Your task to perform on an android device: turn off javascript in the chrome app Image 0: 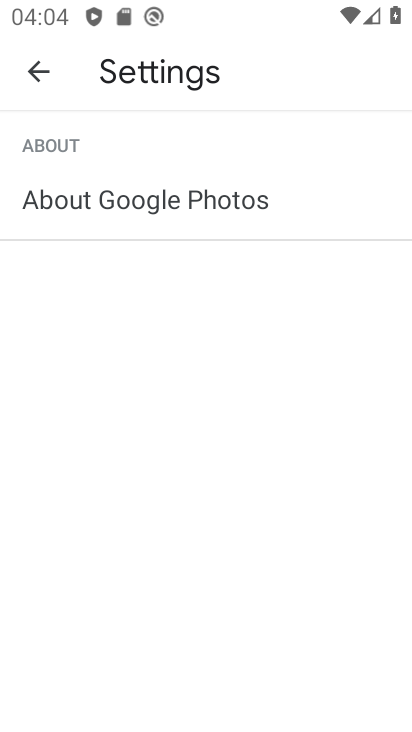
Step 0: press home button
Your task to perform on an android device: turn off javascript in the chrome app Image 1: 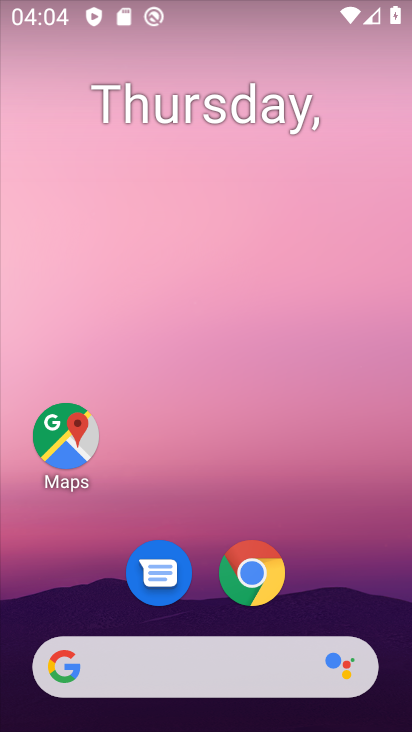
Step 1: click (255, 576)
Your task to perform on an android device: turn off javascript in the chrome app Image 2: 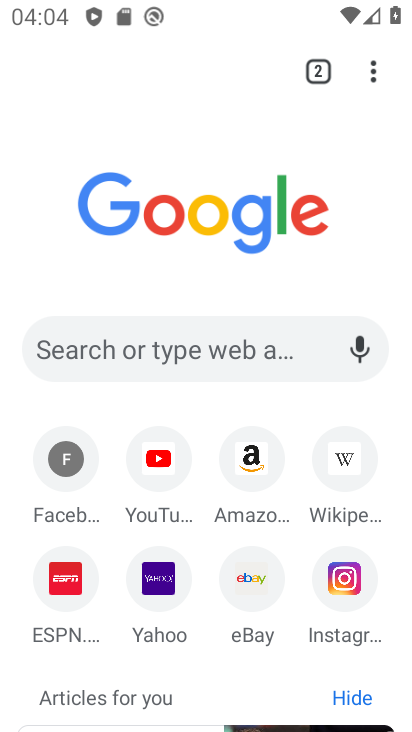
Step 2: click (372, 78)
Your task to perform on an android device: turn off javascript in the chrome app Image 3: 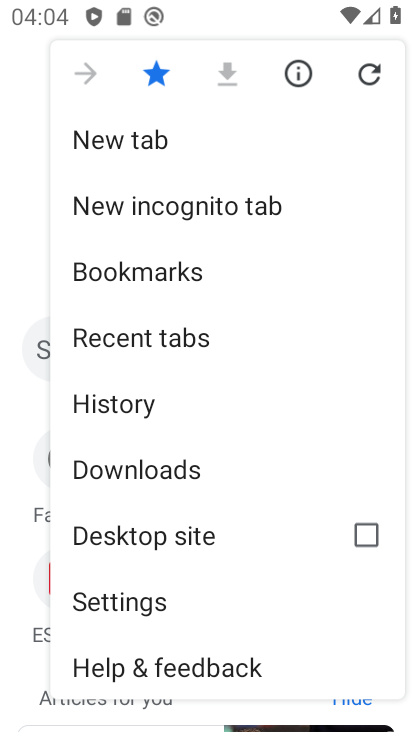
Step 3: click (147, 602)
Your task to perform on an android device: turn off javascript in the chrome app Image 4: 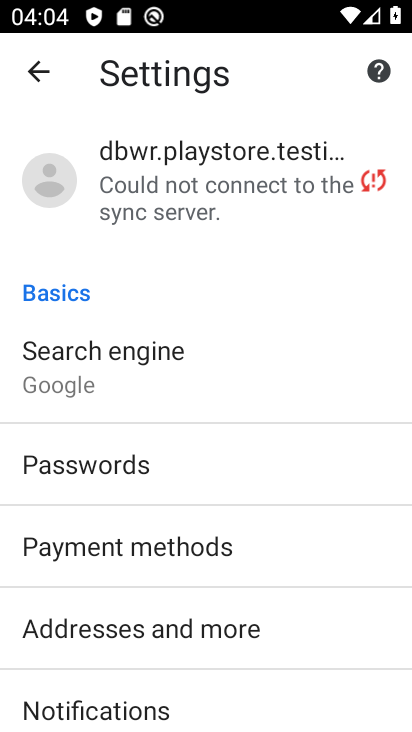
Step 4: drag from (258, 656) to (333, 157)
Your task to perform on an android device: turn off javascript in the chrome app Image 5: 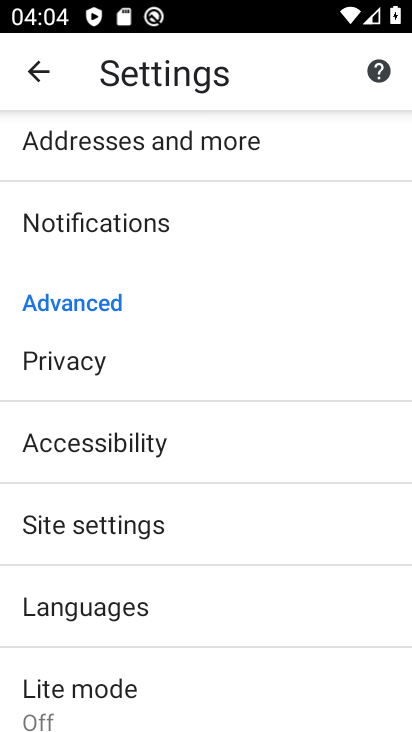
Step 5: click (113, 519)
Your task to perform on an android device: turn off javascript in the chrome app Image 6: 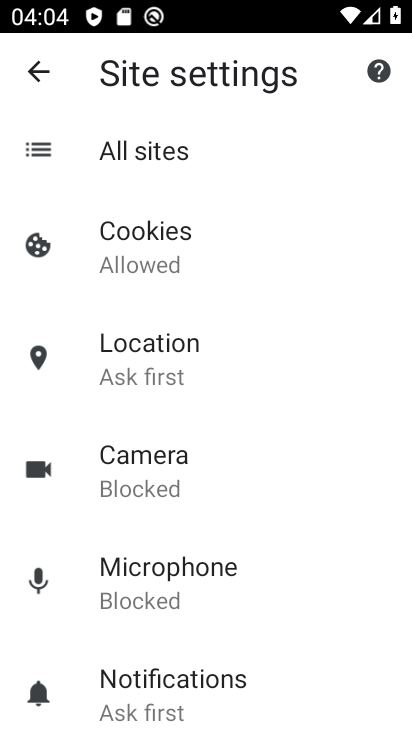
Step 6: drag from (233, 644) to (267, 206)
Your task to perform on an android device: turn off javascript in the chrome app Image 7: 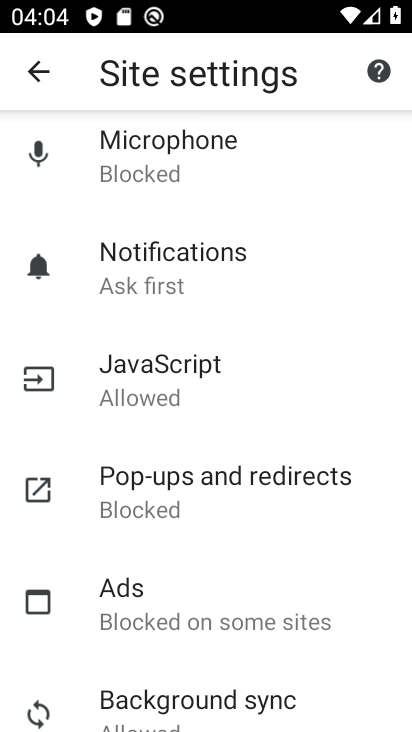
Step 7: click (140, 371)
Your task to perform on an android device: turn off javascript in the chrome app Image 8: 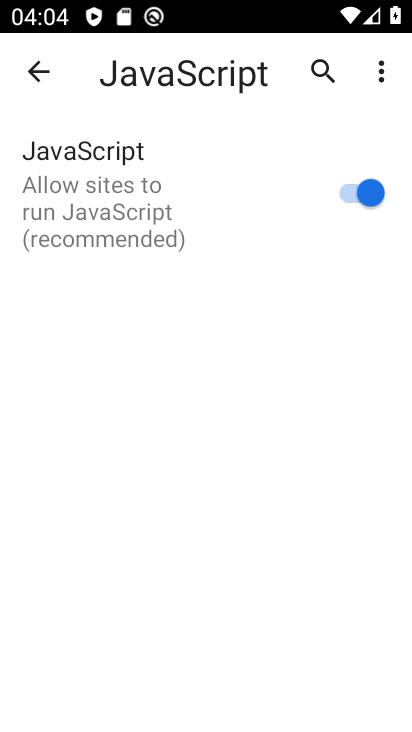
Step 8: click (350, 193)
Your task to perform on an android device: turn off javascript in the chrome app Image 9: 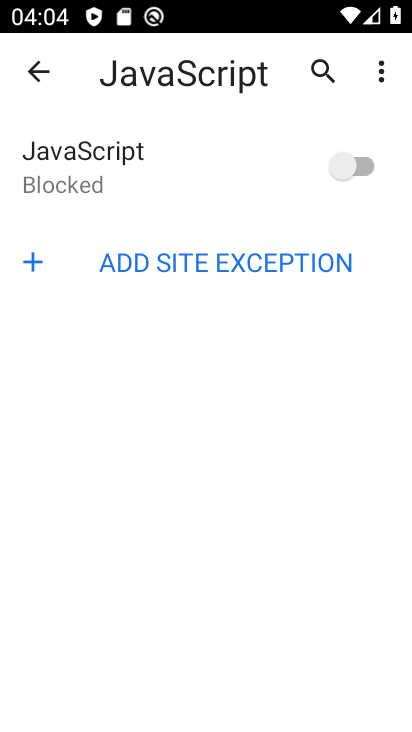
Step 9: task complete